Your task to perform on an android device: turn off airplane mode Image 0: 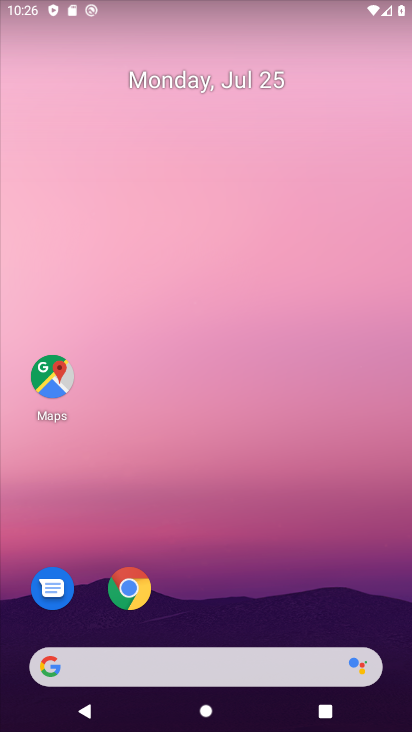
Step 0: drag from (351, 5) to (313, 586)
Your task to perform on an android device: turn off airplane mode Image 1: 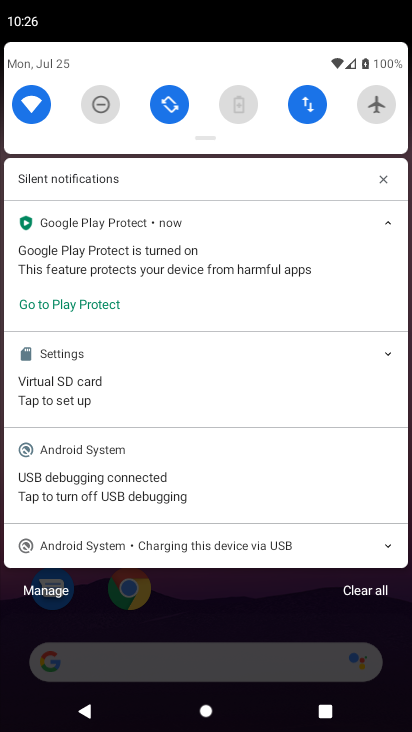
Step 1: task complete